Your task to perform on an android device: Open eBay Image 0: 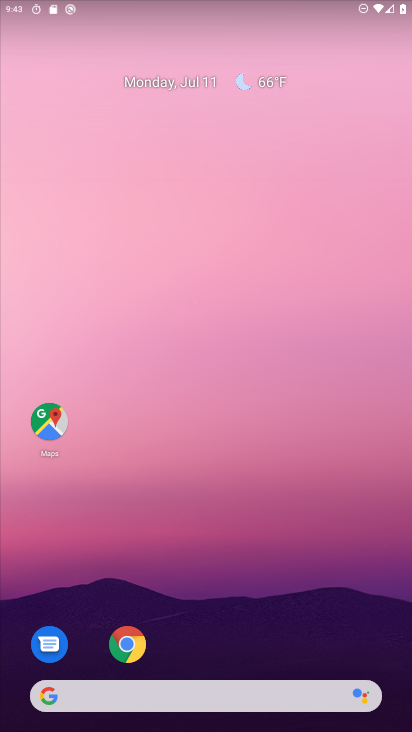
Step 0: click (124, 637)
Your task to perform on an android device: Open eBay Image 1: 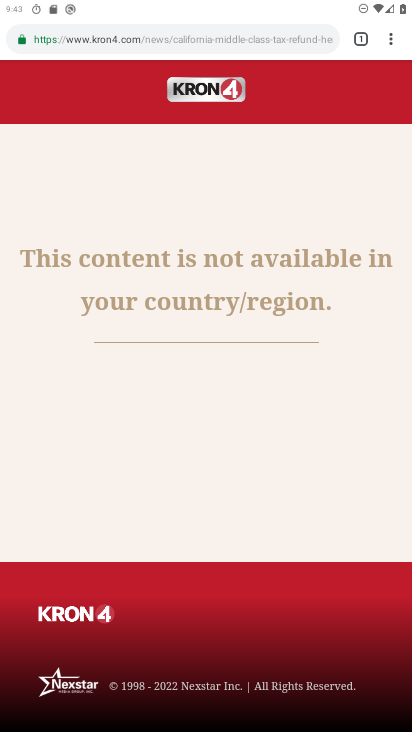
Step 1: click (250, 34)
Your task to perform on an android device: Open eBay Image 2: 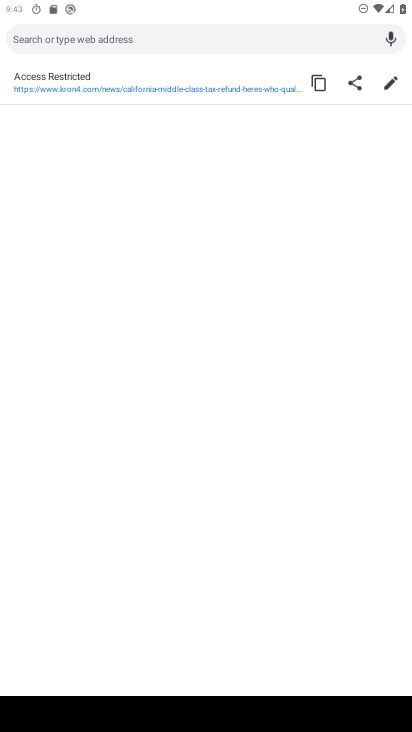
Step 2: type "ebay"
Your task to perform on an android device: Open eBay Image 3: 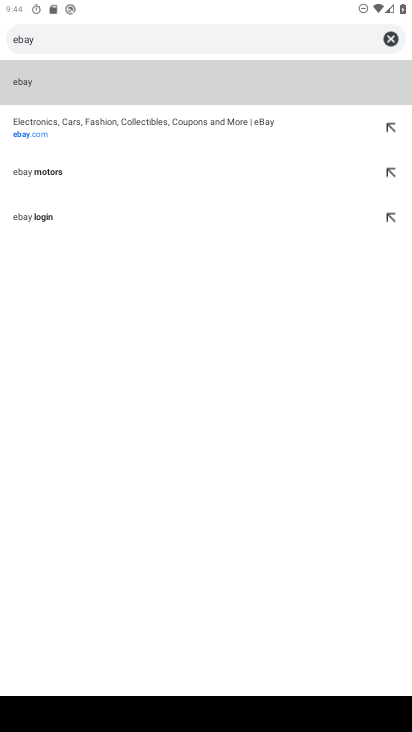
Step 3: press enter
Your task to perform on an android device: Open eBay Image 4: 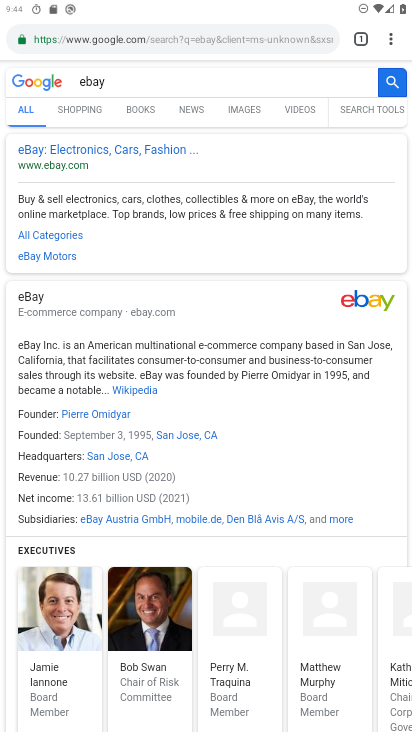
Step 4: click (96, 148)
Your task to perform on an android device: Open eBay Image 5: 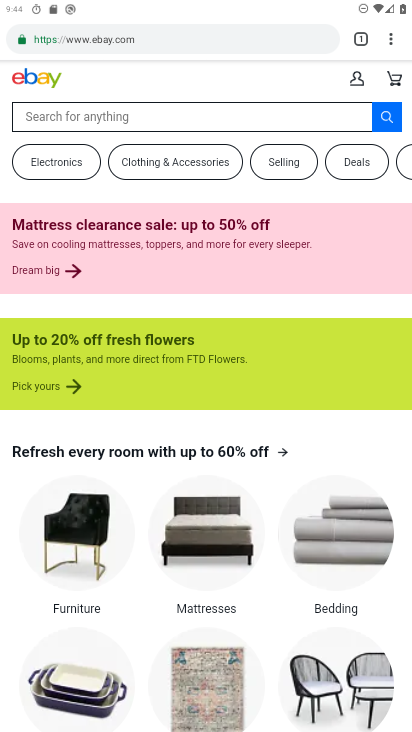
Step 5: task complete